Your task to perform on an android device: Open Google Chrome and open the bookmarks view Image 0: 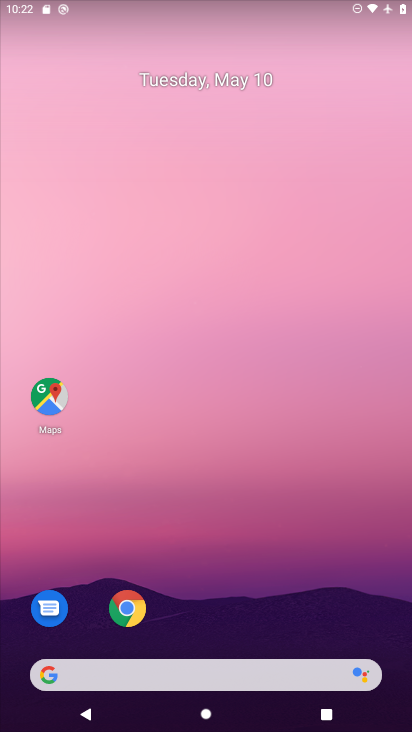
Step 0: drag from (268, 381) to (275, 229)
Your task to perform on an android device: Open Google Chrome and open the bookmarks view Image 1: 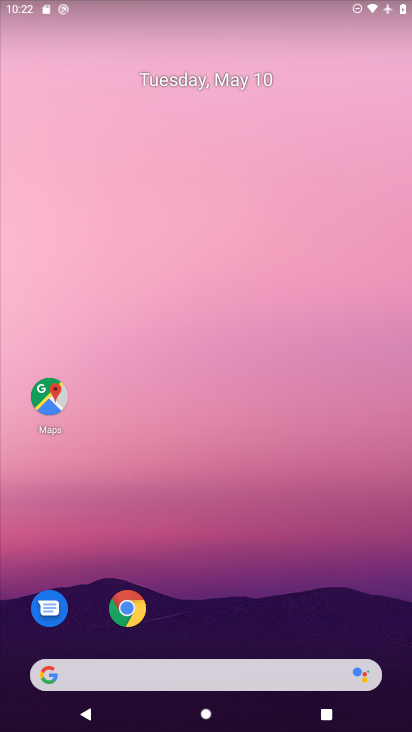
Step 1: drag from (262, 596) to (315, 55)
Your task to perform on an android device: Open Google Chrome and open the bookmarks view Image 2: 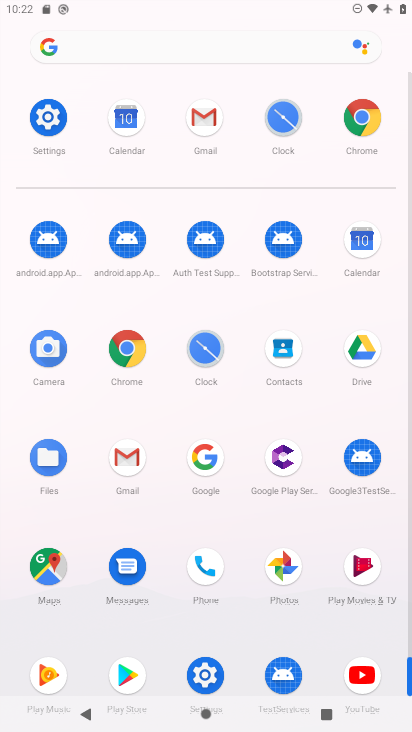
Step 2: click (348, 120)
Your task to perform on an android device: Open Google Chrome and open the bookmarks view Image 3: 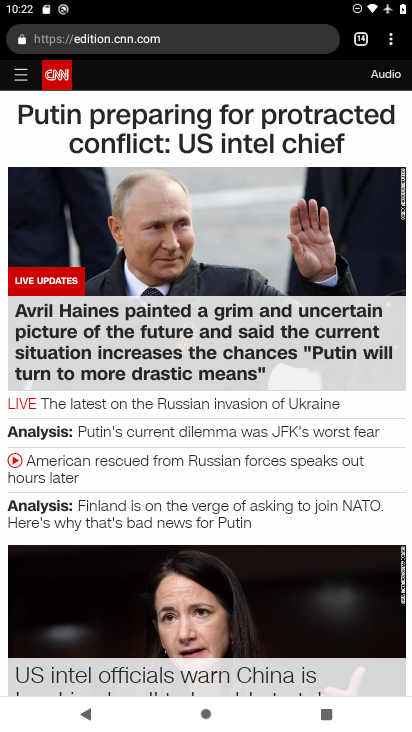
Step 3: click (384, 38)
Your task to perform on an android device: Open Google Chrome and open the bookmarks view Image 4: 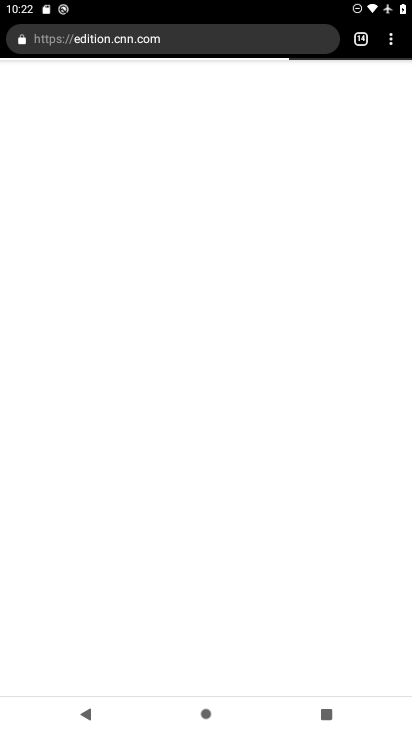
Step 4: click (384, 41)
Your task to perform on an android device: Open Google Chrome and open the bookmarks view Image 5: 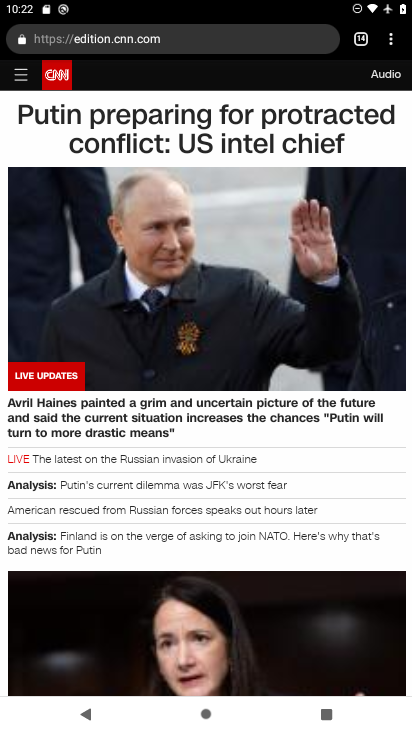
Step 5: click (384, 42)
Your task to perform on an android device: Open Google Chrome and open the bookmarks view Image 6: 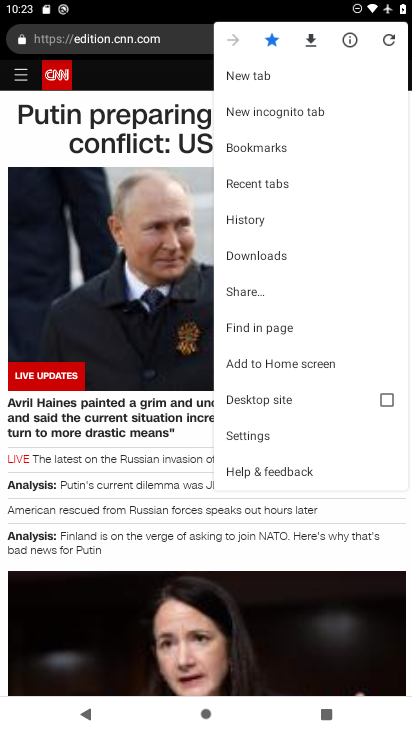
Step 6: click (274, 142)
Your task to perform on an android device: Open Google Chrome and open the bookmarks view Image 7: 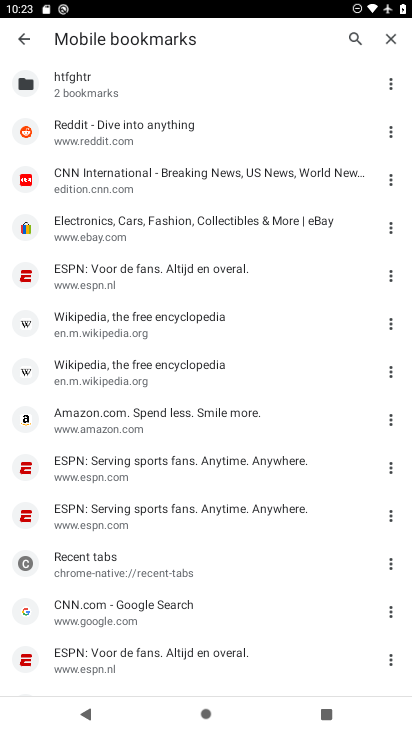
Step 7: task complete